Your task to perform on an android device: Check the news Image 0: 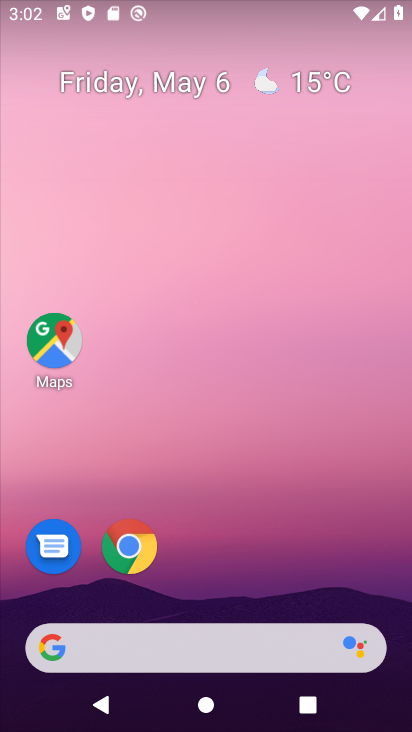
Step 0: drag from (265, 553) to (173, 172)
Your task to perform on an android device: Check the news Image 1: 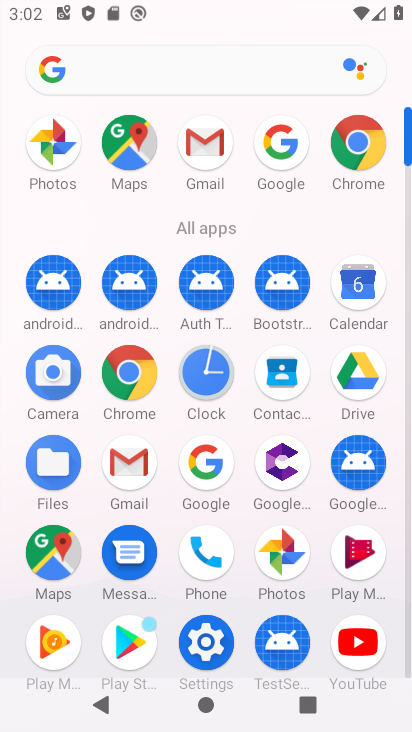
Step 1: click (263, 67)
Your task to perform on an android device: Check the news Image 2: 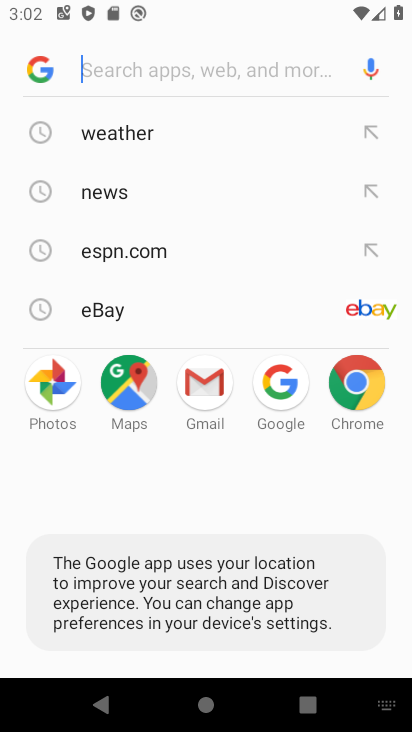
Step 2: click (155, 205)
Your task to perform on an android device: Check the news Image 3: 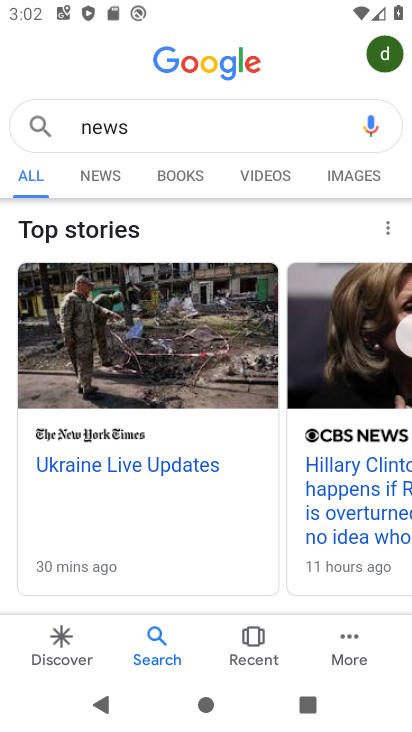
Step 3: task complete